Your task to perform on an android device: set the timer Image 0: 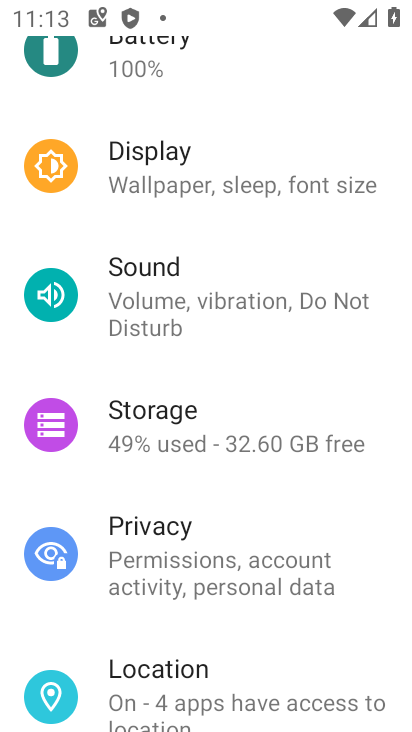
Step 0: press home button
Your task to perform on an android device: set the timer Image 1: 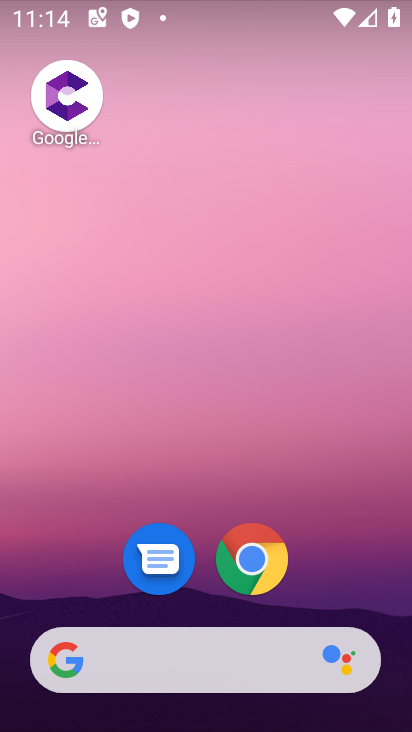
Step 1: drag from (357, 536) to (309, 3)
Your task to perform on an android device: set the timer Image 2: 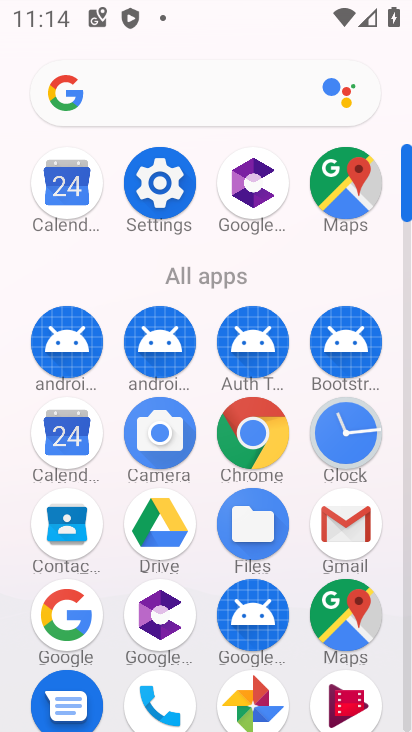
Step 2: click (345, 431)
Your task to perform on an android device: set the timer Image 3: 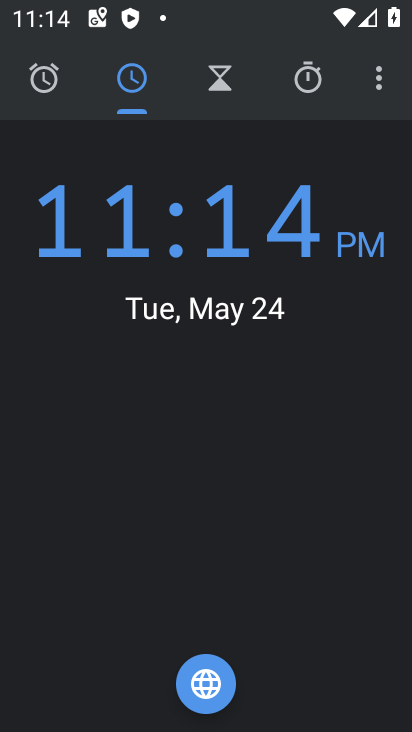
Step 3: click (211, 94)
Your task to perform on an android device: set the timer Image 4: 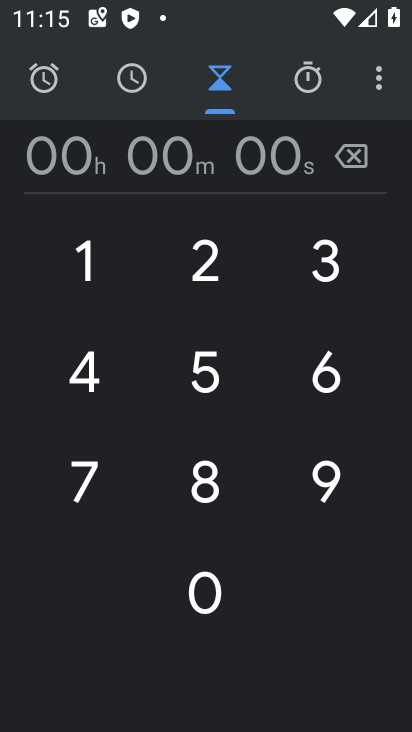
Step 4: click (210, 265)
Your task to perform on an android device: set the timer Image 5: 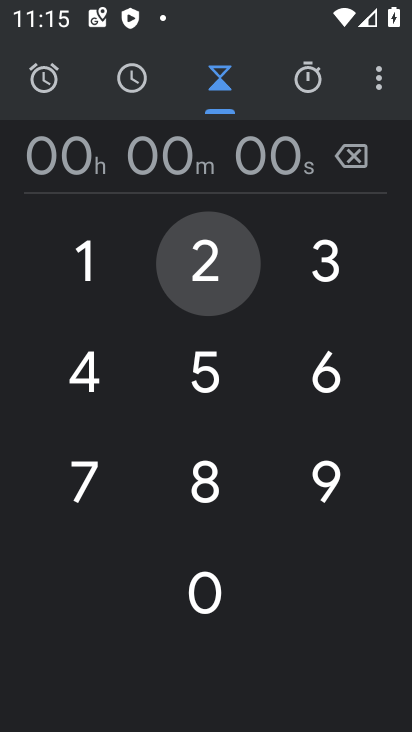
Step 5: click (220, 381)
Your task to perform on an android device: set the timer Image 6: 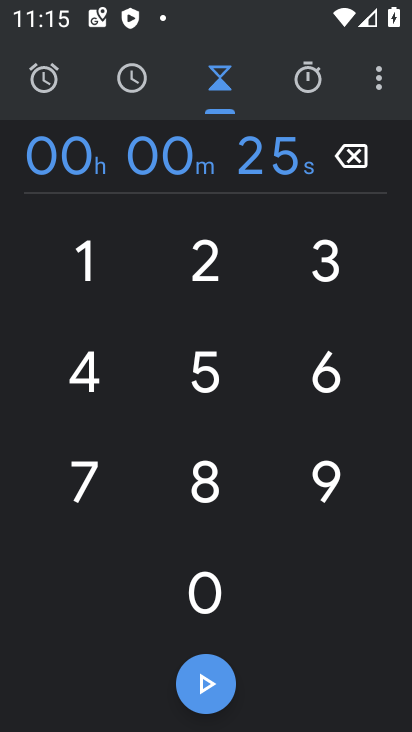
Step 6: click (207, 257)
Your task to perform on an android device: set the timer Image 7: 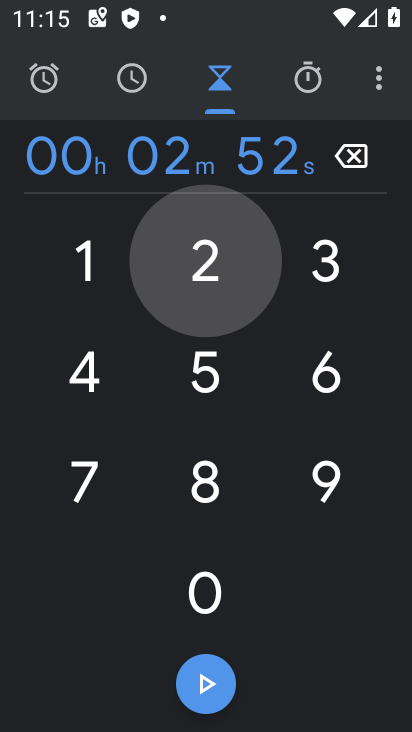
Step 7: click (223, 343)
Your task to perform on an android device: set the timer Image 8: 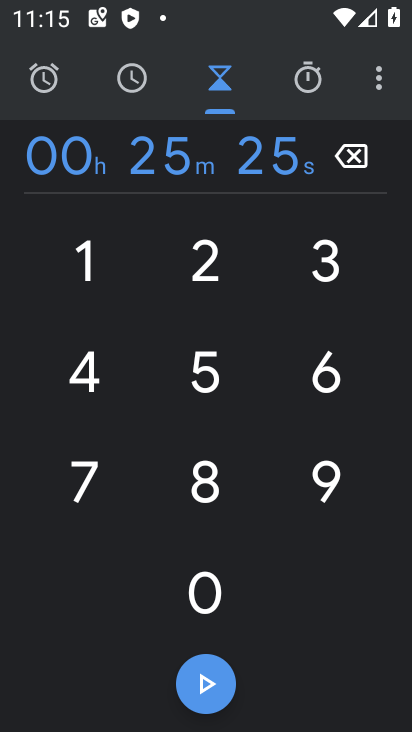
Step 8: click (210, 288)
Your task to perform on an android device: set the timer Image 9: 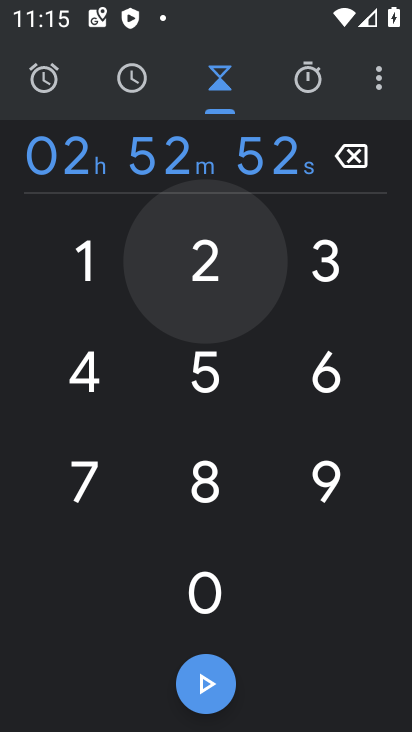
Step 9: click (224, 363)
Your task to perform on an android device: set the timer Image 10: 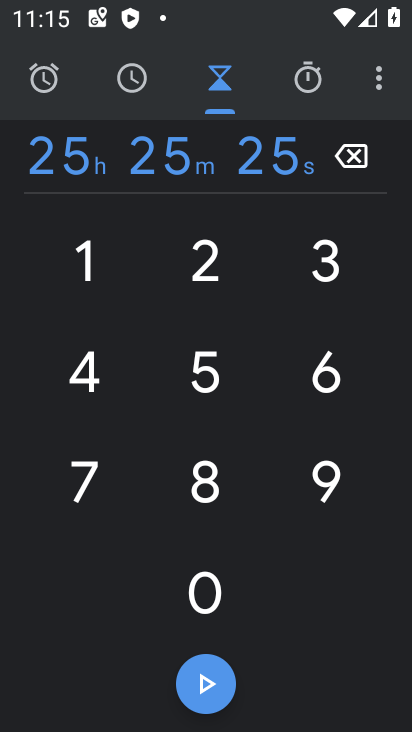
Step 10: click (215, 686)
Your task to perform on an android device: set the timer Image 11: 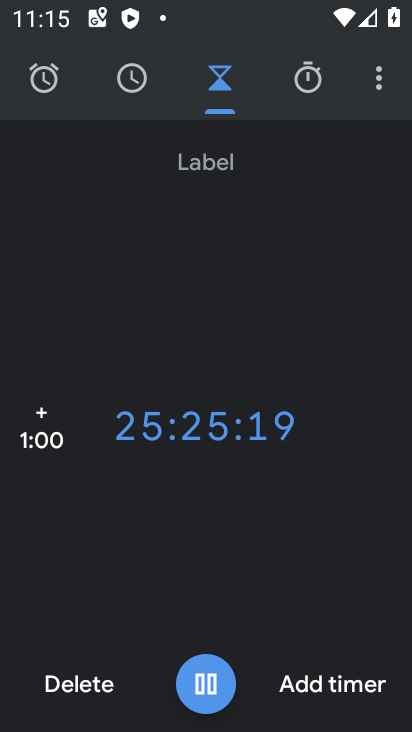
Step 11: task complete